Your task to perform on an android device: toggle airplane mode Image 0: 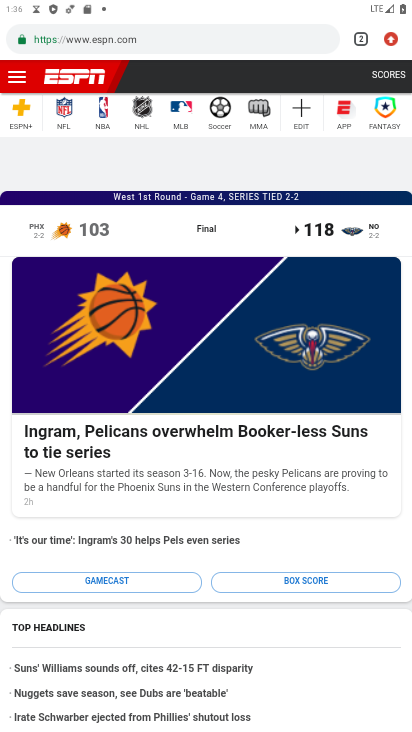
Step 0: drag from (200, 22) to (182, 432)
Your task to perform on an android device: toggle airplane mode Image 1: 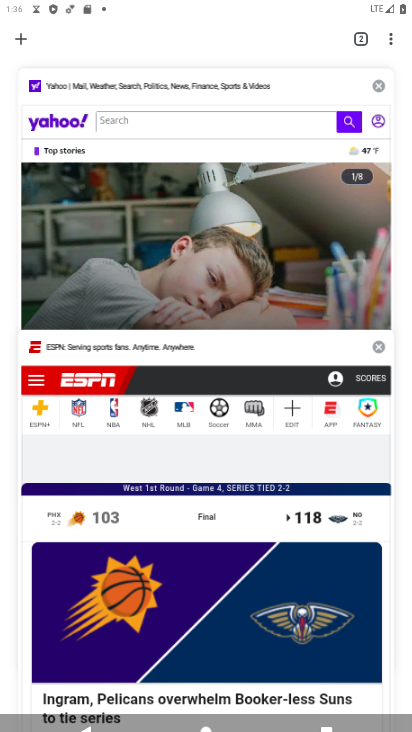
Step 1: drag from (187, 64) to (169, 569)
Your task to perform on an android device: toggle airplane mode Image 2: 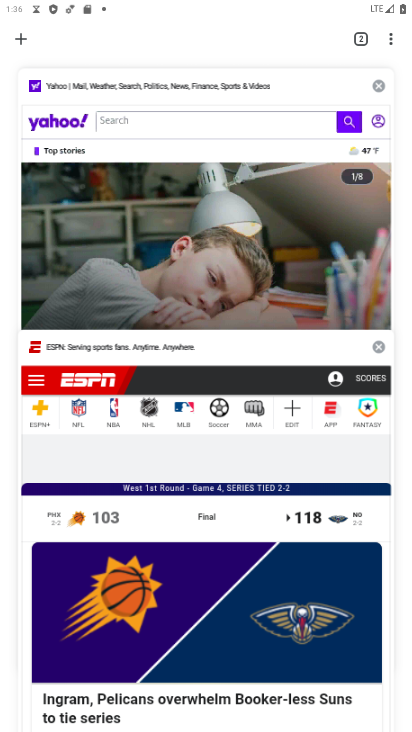
Step 2: drag from (207, 16) to (194, 632)
Your task to perform on an android device: toggle airplane mode Image 3: 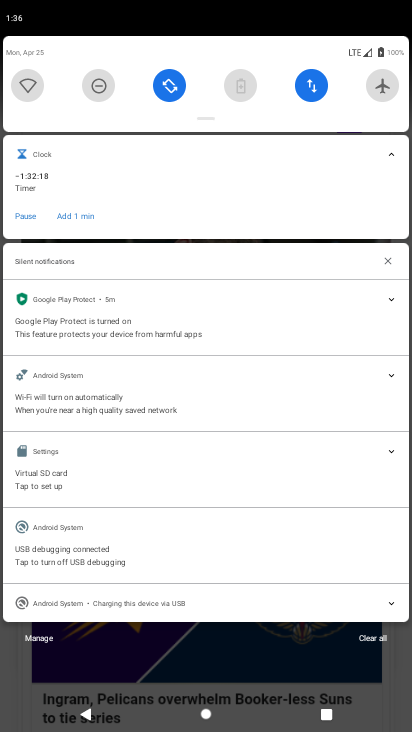
Step 3: drag from (206, 123) to (177, 470)
Your task to perform on an android device: toggle airplane mode Image 4: 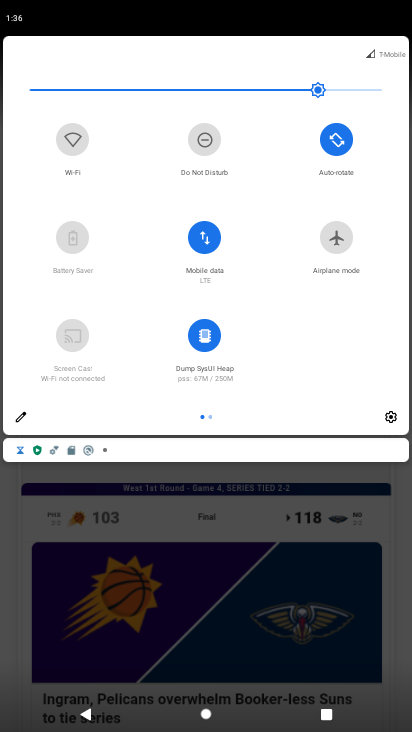
Step 4: click (336, 246)
Your task to perform on an android device: toggle airplane mode Image 5: 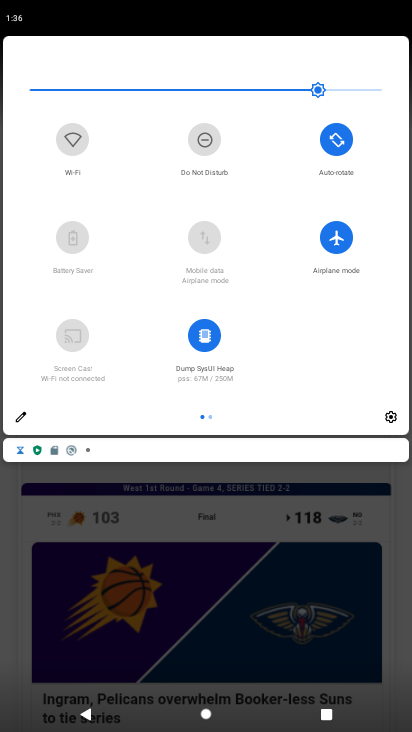
Step 5: task complete